Your task to perform on an android device: Go to notification settings Image 0: 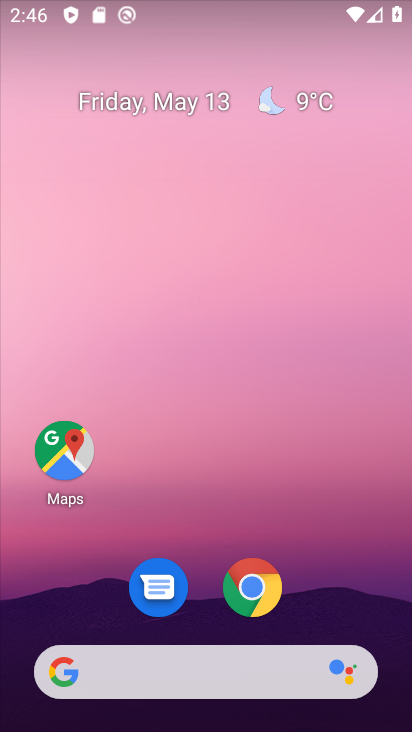
Step 0: drag from (303, 443) to (296, 311)
Your task to perform on an android device: Go to notification settings Image 1: 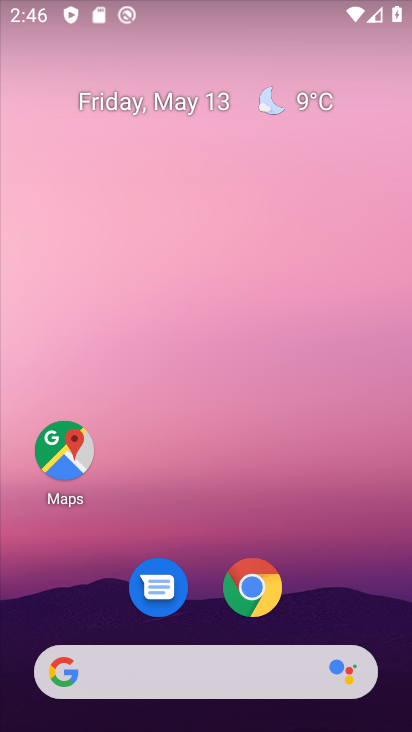
Step 1: drag from (330, 585) to (319, 210)
Your task to perform on an android device: Go to notification settings Image 2: 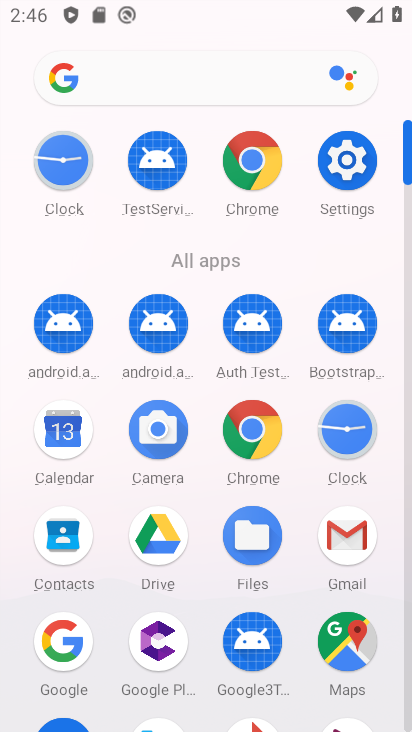
Step 2: click (346, 177)
Your task to perform on an android device: Go to notification settings Image 3: 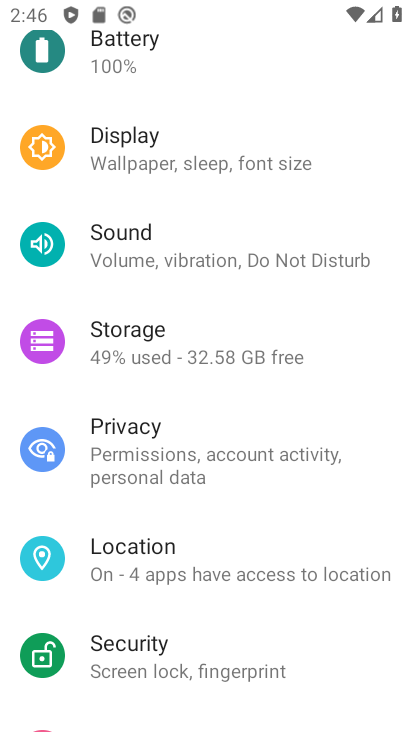
Step 3: drag from (237, 600) to (260, 185)
Your task to perform on an android device: Go to notification settings Image 4: 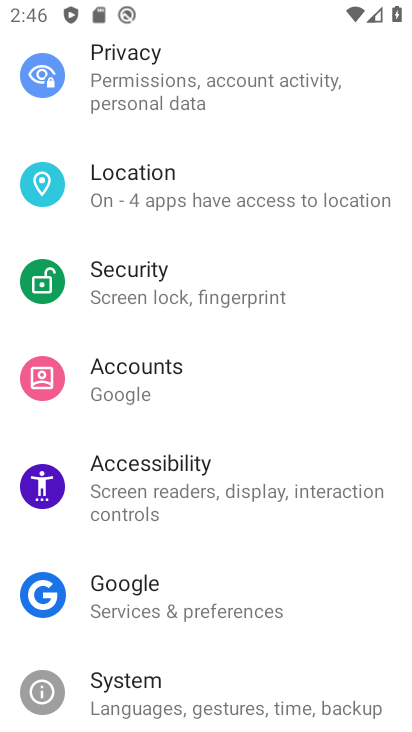
Step 4: drag from (236, 235) to (246, 664)
Your task to perform on an android device: Go to notification settings Image 5: 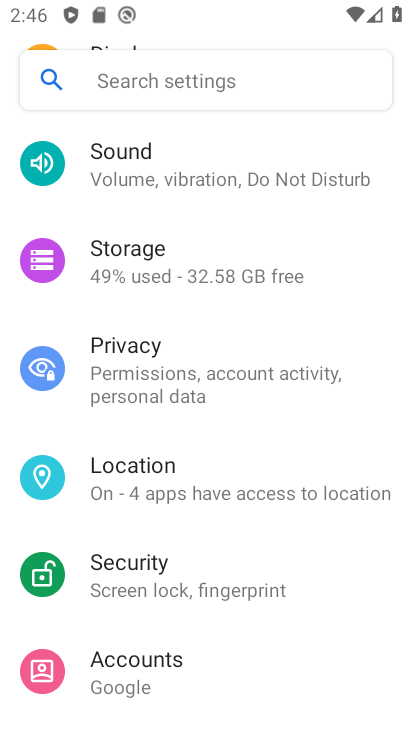
Step 5: drag from (228, 176) to (232, 624)
Your task to perform on an android device: Go to notification settings Image 6: 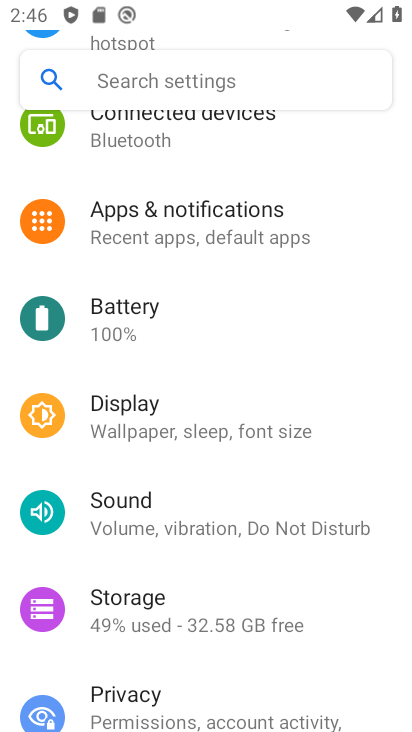
Step 6: click (210, 241)
Your task to perform on an android device: Go to notification settings Image 7: 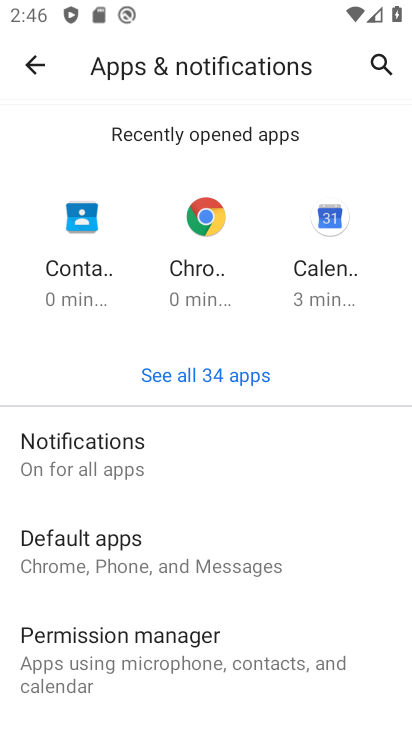
Step 7: click (175, 458)
Your task to perform on an android device: Go to notification settings Image 8: 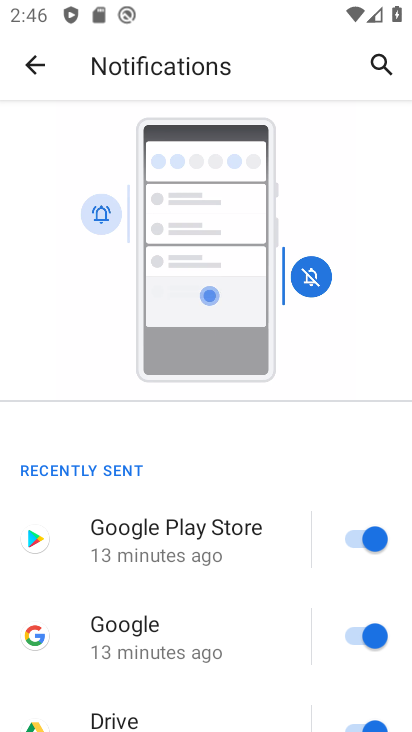
Step 8: task complete